Your task to perform on an android device: Open the map Image 0: 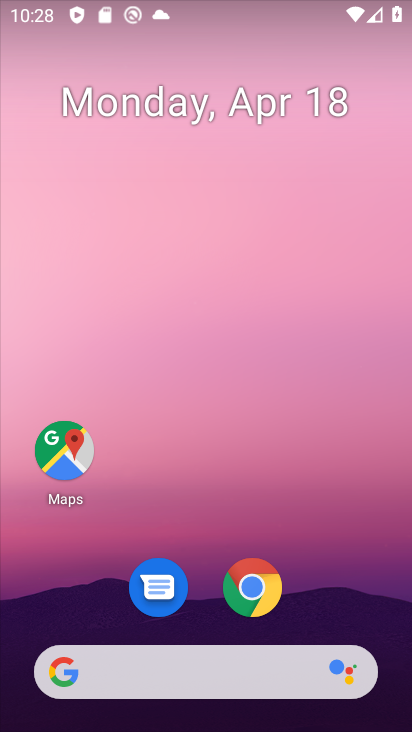
Step 0: drag from (357, 558) to (352, 98)
Your task to perform on an android device: Open the map Image 1: 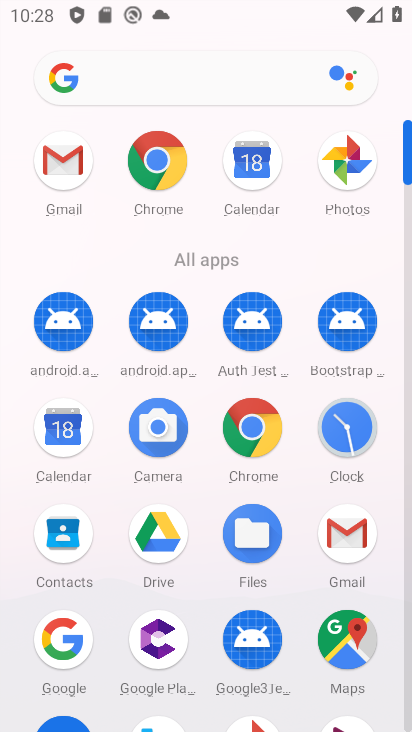
Step 1: click (342, 644)
Your task to perform on an android device: Open the map Image 2: 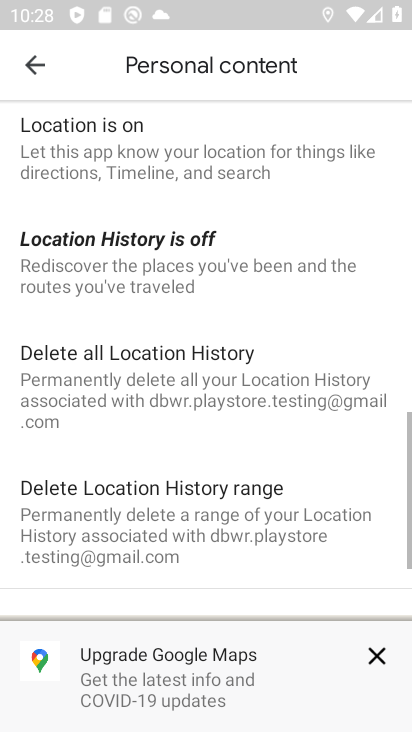
Step 2: click (379, 664)
Your task to perform on an android device: Open the map Image 3: 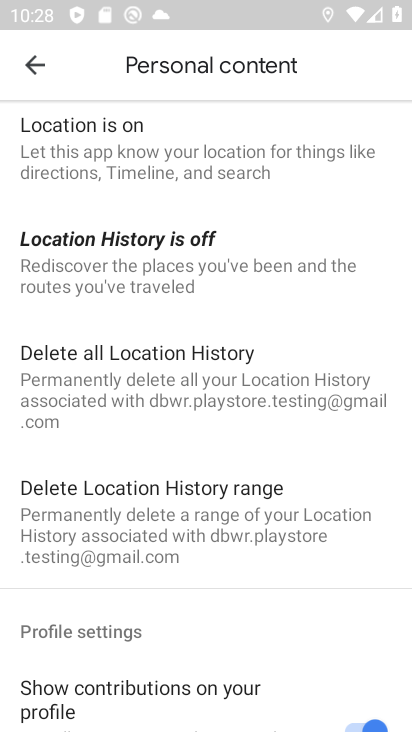
Step 3: drag from (195, 151) to (257, 637)
Your task to perform on an android device: Open the map Image 4: 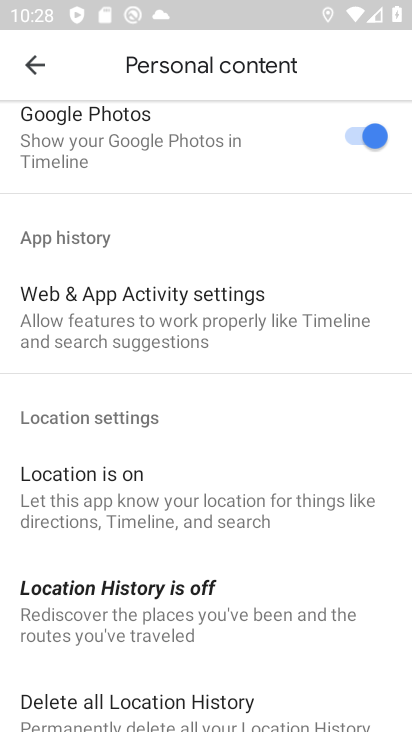
Step 4: click (31, 56)
Your task to perform on an android device: Open the map Image 5: 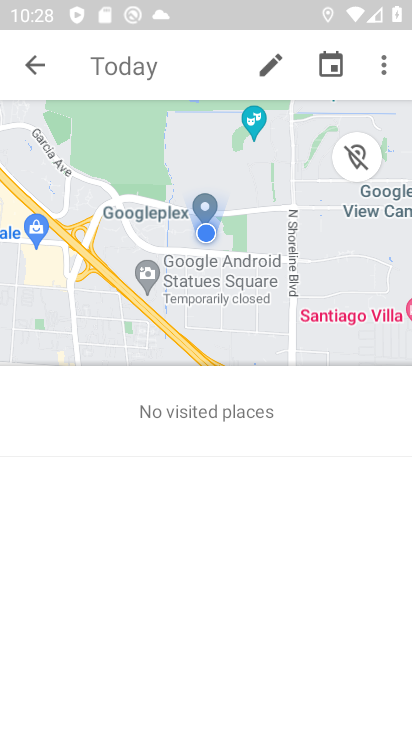
Step 5: click (29, 54)
Your task to perform on an android device: Open the map Image 6: 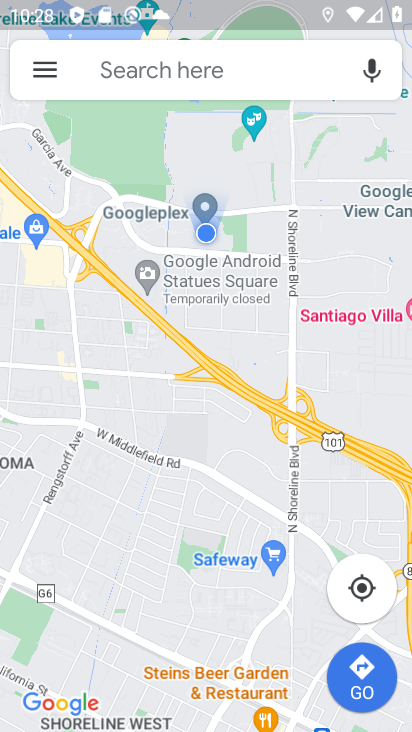
Step 6: task complete